Your task to perform on an android device: Open CNN.com Image 0: 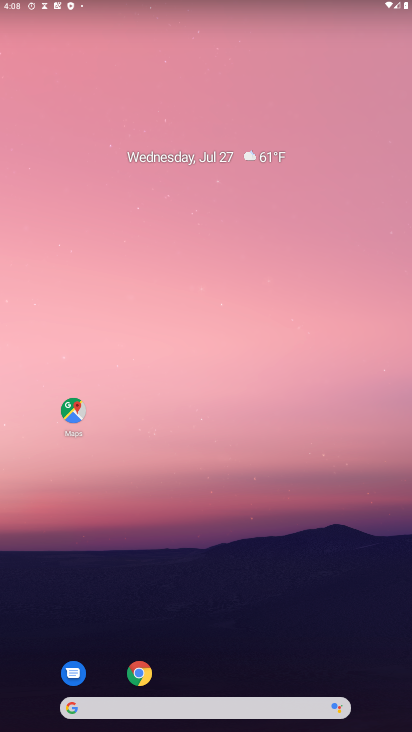
Step 0: click (145, 707)
Your task to perform on an android device: Open CNN.com Image 1: 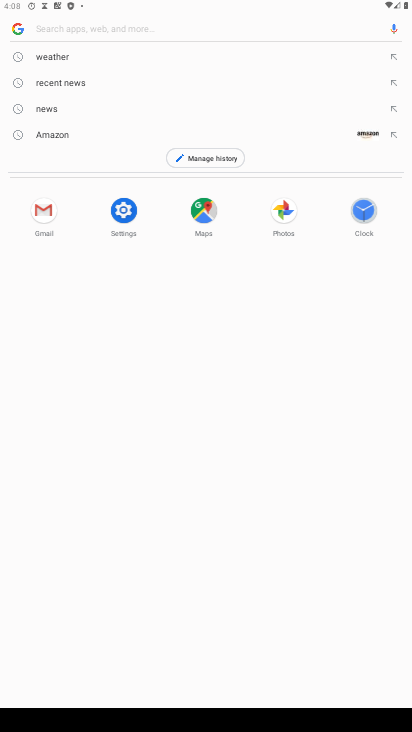
Step 1: type ""
Your task to perform on an android device: Open CNN.com Image 2: 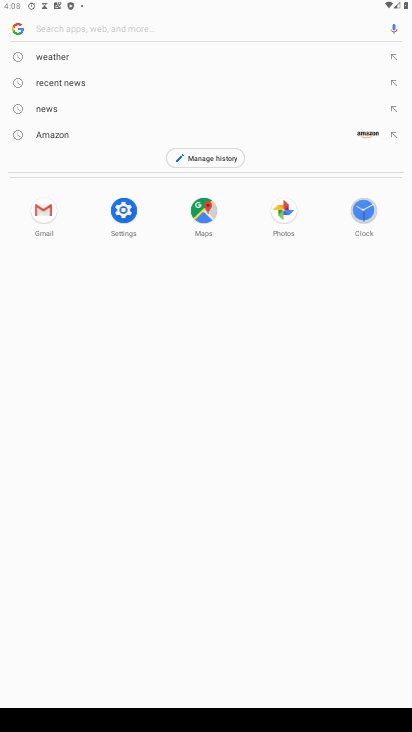
Step 2: type " CNN.com"
Your task to perform on an android device: Open CNN.com Image 3: 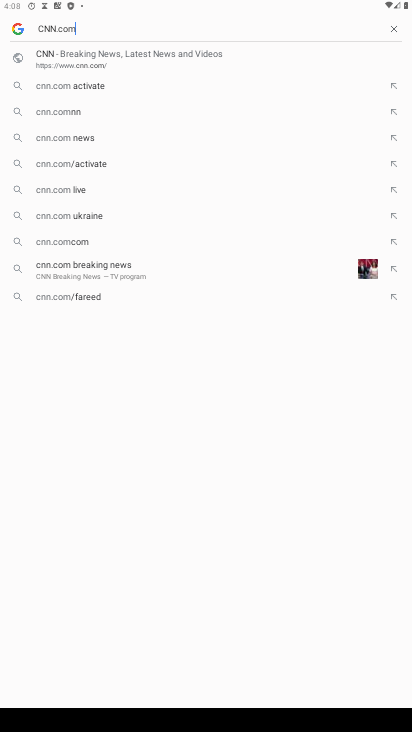
Step 3: click (46, 60)
Your task to perform on an android device: Open CNN.com Image 4: 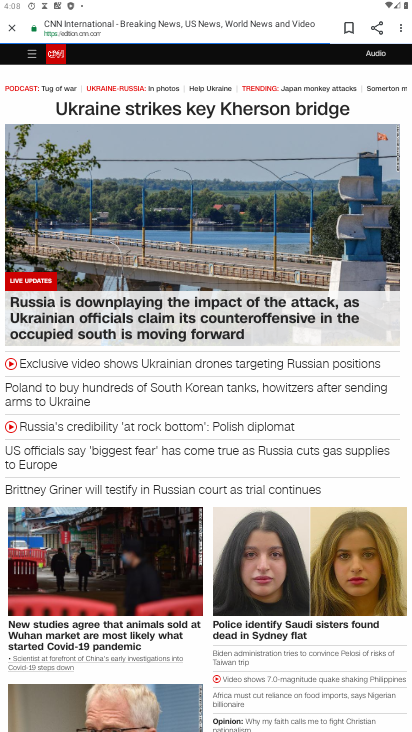
Step 4: task complete